Your task to perform on an android device: check the backup settings in the google photos Image 0: 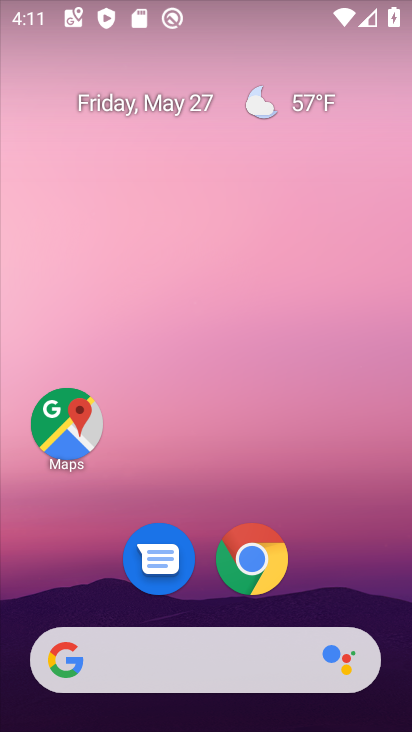
Step 0: drag from (357, 580) to (386, 157)
Your task to perform on an android device: check the backup settings in the google photos Image 1: 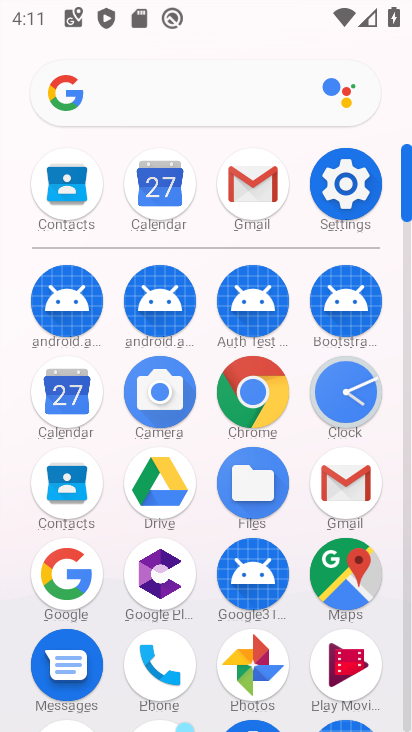
Step 1: click (246, 654)
Your task to perform on an android device: check the backup settings in the google photos Image 2: 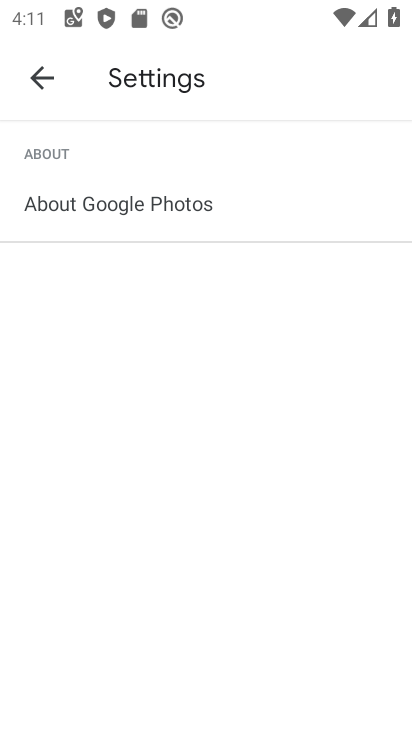
Step 2: click (58, 75)
Your task to perform on an android device: check the backup settings in the google photos Image 3: 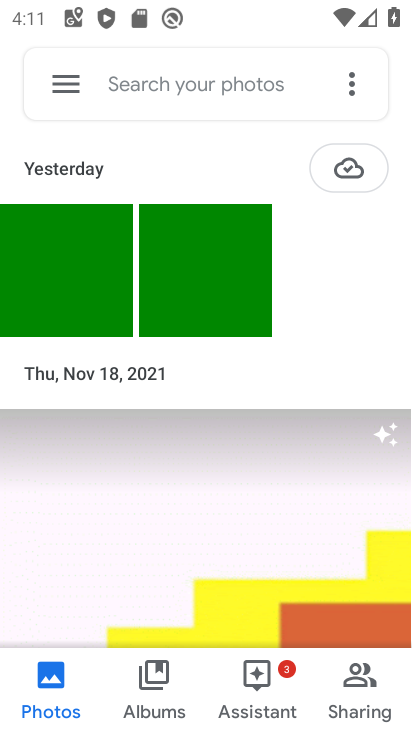
Step 3: task complete